Your task to perform on an android device: Open notification settings Image 0: 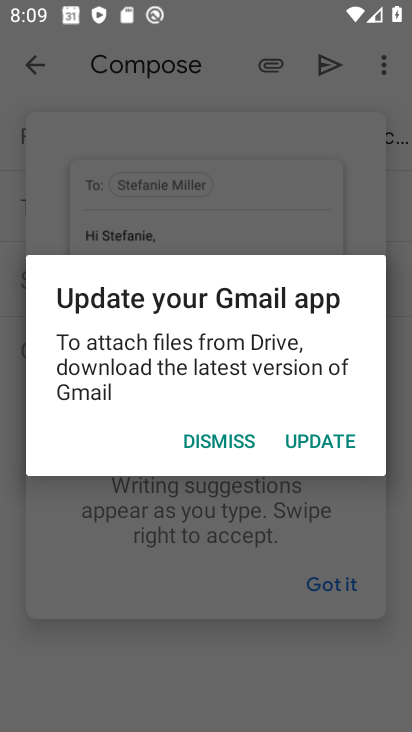
Step 0: press home button
Your task to perform on an android device: Open notification settings Image 1: 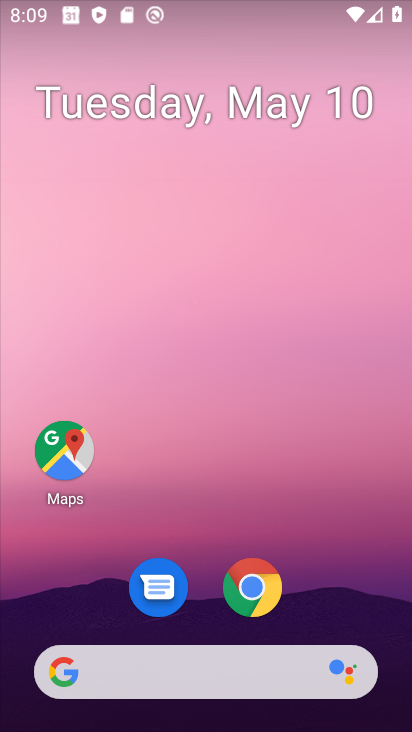
Step 1: drag from (341, 567) to (399, 8)
Your task to perform on an android device: Open notification settings Image 2: 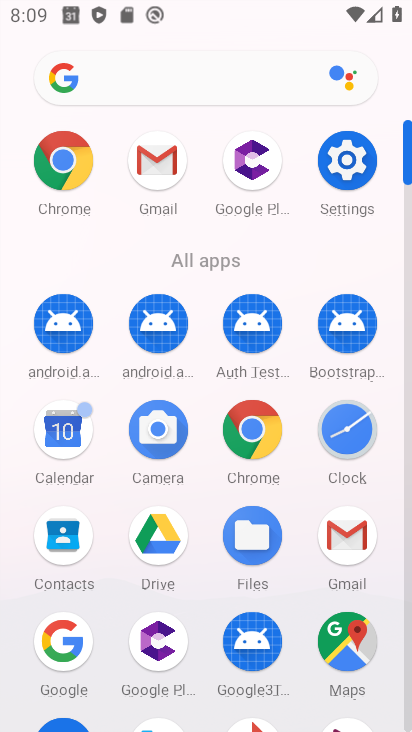
Step 2: click (348, 174)
Your task to perform on an android device: Open notification settings Image 3: 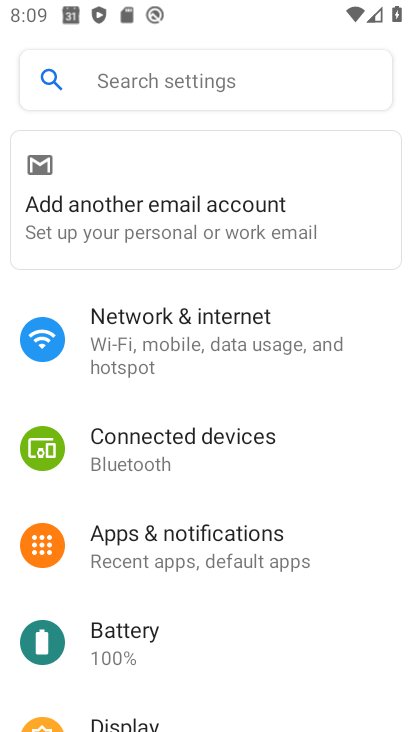
Step 3: click (213, 536)
Your task to perform on an android device: Open notification settings Image 4: 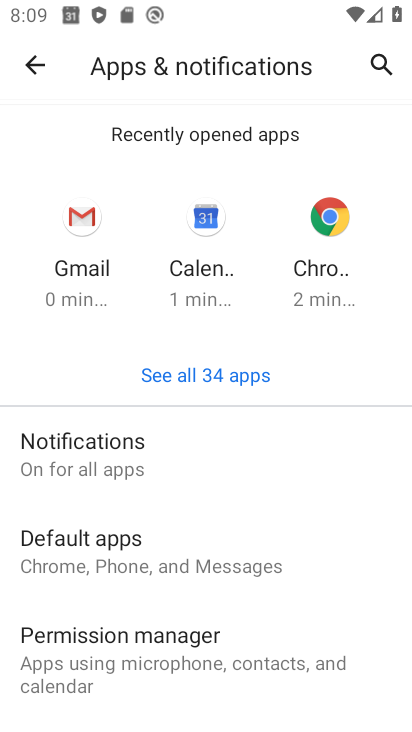
Step 4: click (99, 448)
Your task to perform on an android device: Open notification settings Image 5: 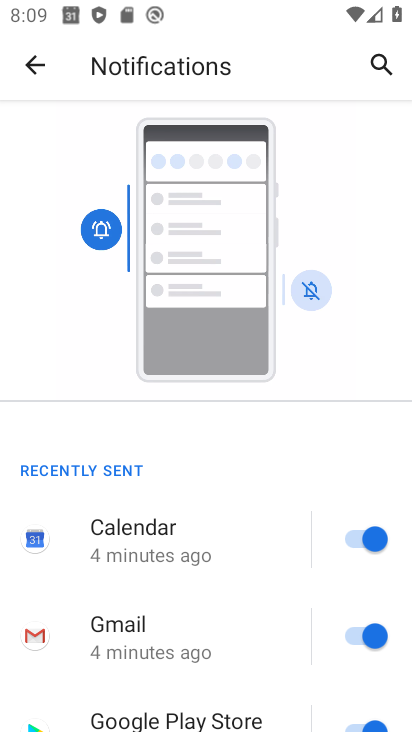
Step 5: task complete